Your task to perform on an android device: open a bookmark in the chrome app Image 0: 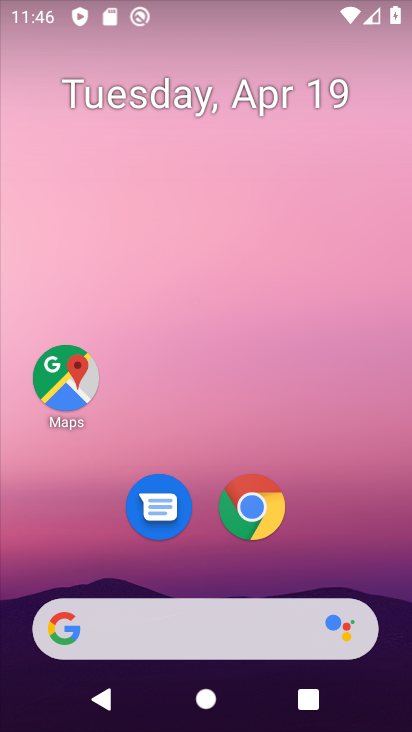
Step 0: click (257, 510)
Your task to perform on an android device: open a bookmark in the chrome app Image 1: 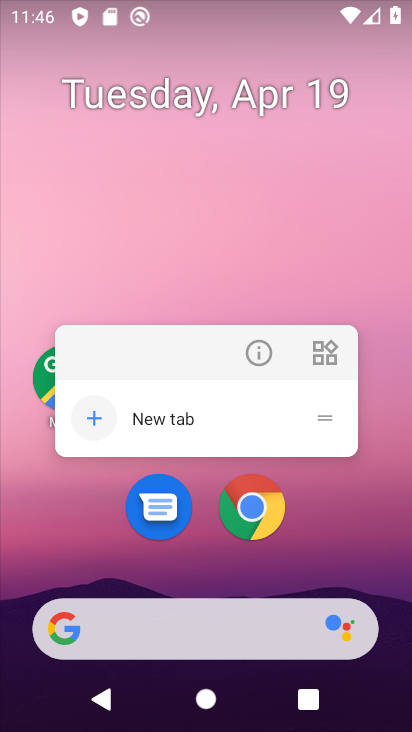
Step 1: click (257, 511)
Your task to perform on an android device: open a bookmark in the chrome app Image 2: 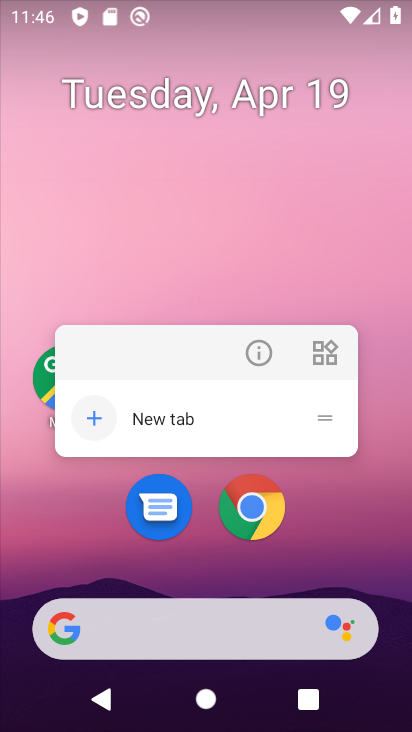
Step 2: click (233, 516)
Your task to perform on an android device: open a bookmark in the chrome app Image 3: 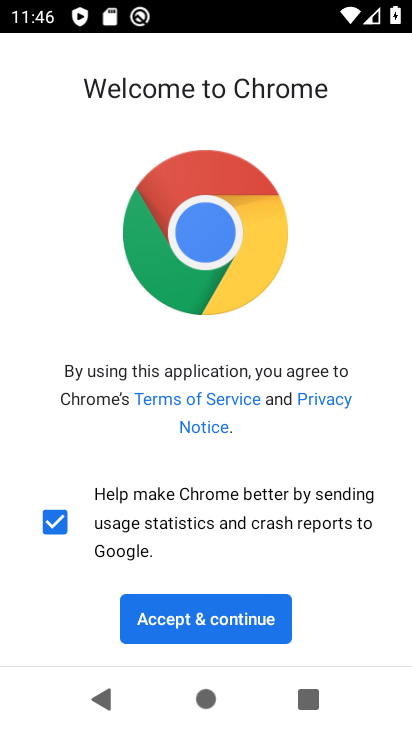
Step 3: click (206, 617)
Your task to perform on an android device: open a bookmark in the chrome app Image 4: 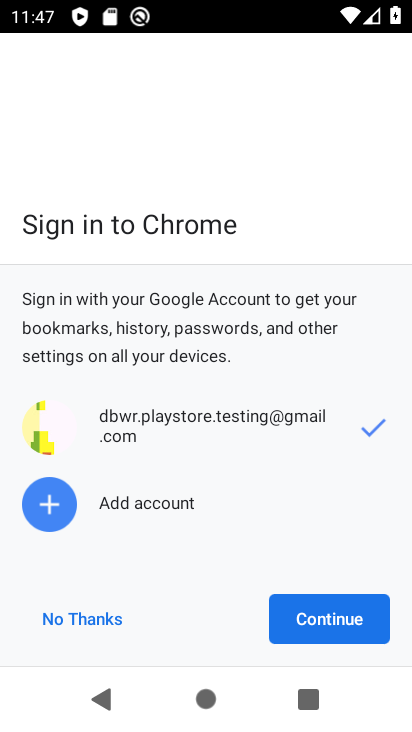
Step 4: click (318, 624)
Your task to perform on an android device: open a bookmark in the chrome app Image 5: 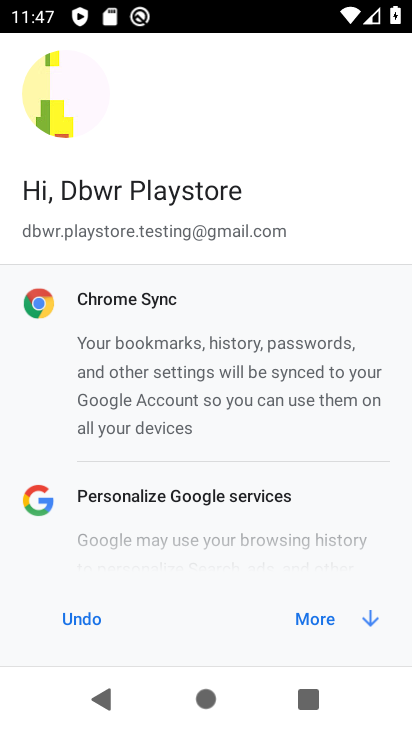
Step 5: click (318, 624)
Your task to perform on an android device: open a bookmark in the chrome app Image 6: 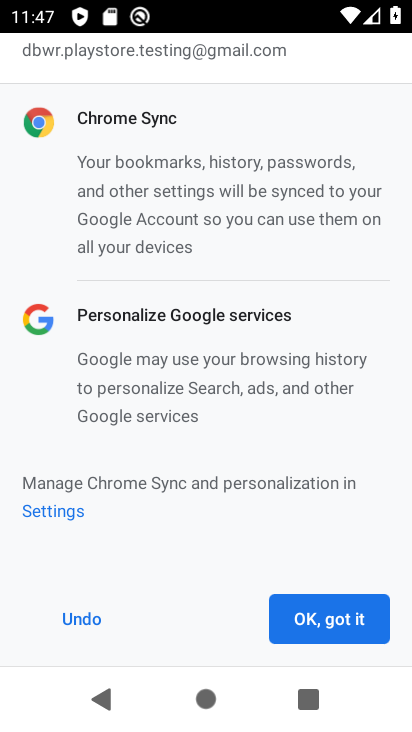
Step 6: click (320, 624)
Your task to perform on an android device: open a bookmark in the chrome app Image 7: 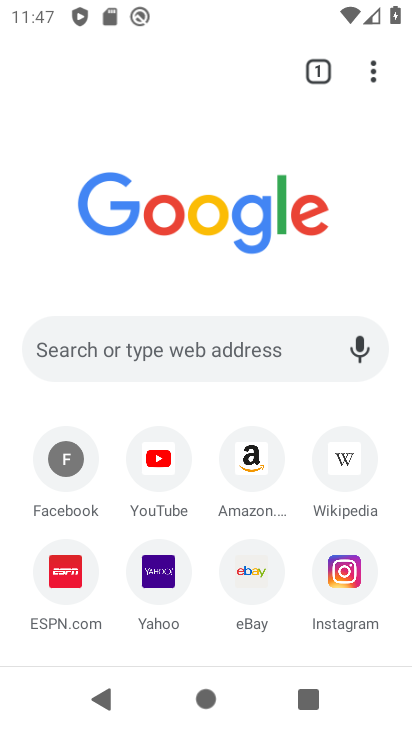
Step 7: click (376, 69)
Your task to perform on an android device: open a bookmark in the chrome app Image 8: 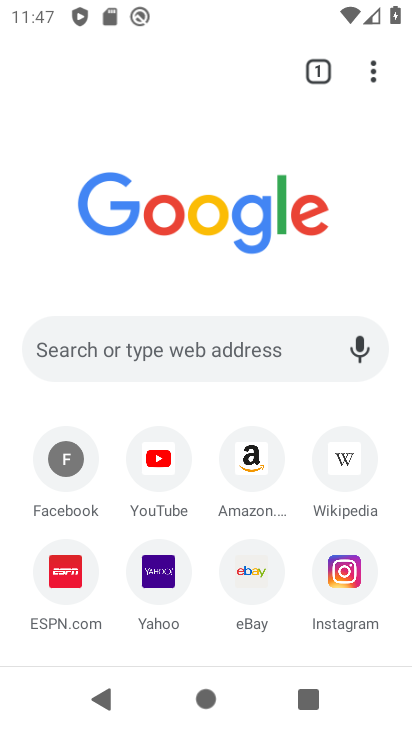
Step 8: click (373, 76)
Your task to perform on an android device: open a bookmark in the chrome app Image 9: 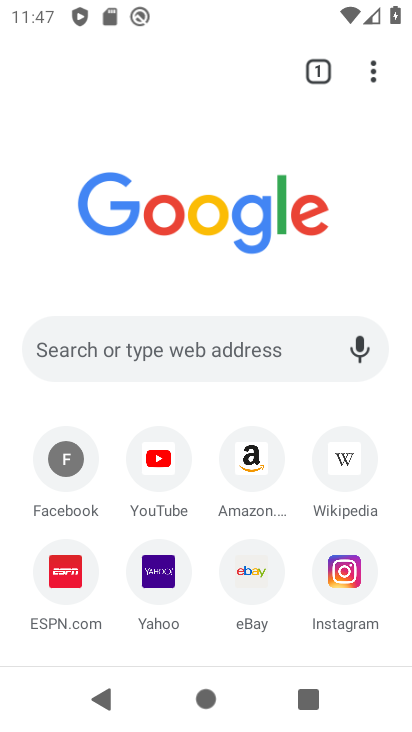
Step 9: click (374, 72)
Your task to perform on an android device: open a bookmark in the chrome app Image 10: 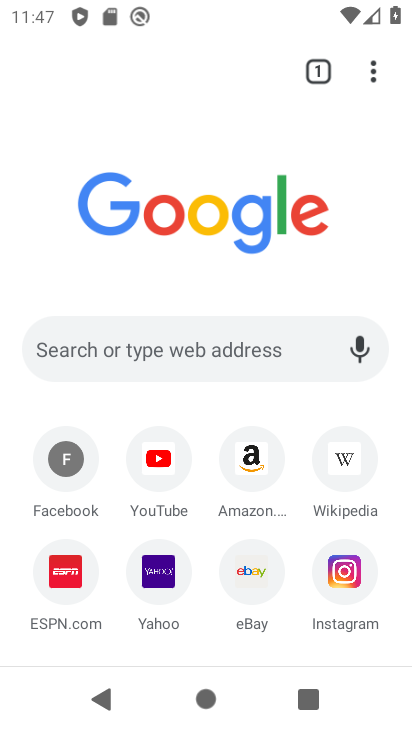
Step 10: click (374, 72)
Your task to perform on an android device: open a bookmark in the chrome app Image 11: 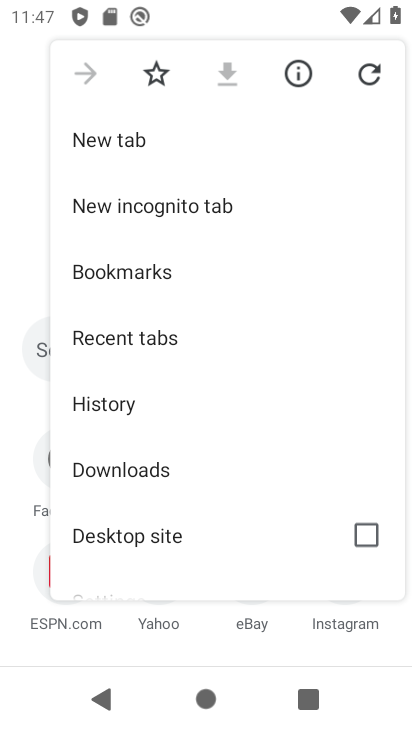
Step 11: click (124, 270)
Your task to perform on an android device: open a bookmark in the chrome app Image 12: 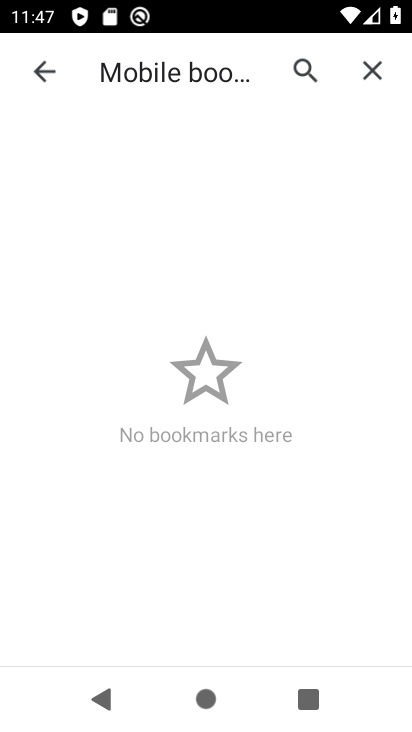
Step 12: task complete